Your task to perform on an android device: turn notification dots on Image 0: 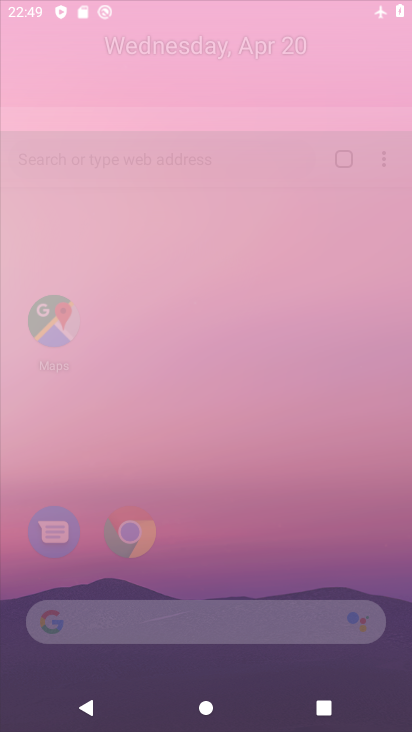
Step 0: click (346, 328)
Your task to perform on an android device: turn notification dots on Image 1: 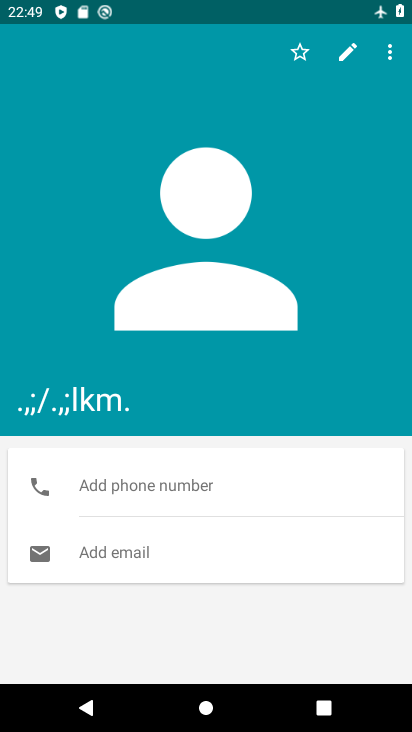
Step 1: press home button
Your task to perform on an android device: turn notification dots on Image 2: 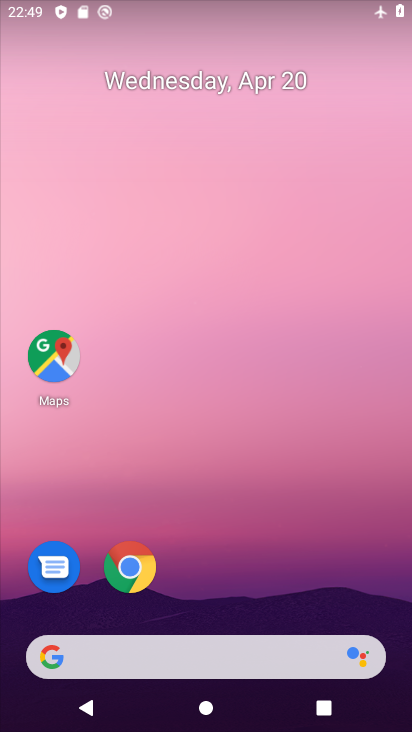
Step 2: drag from (269, 336) to (272, 291)
Your task to perform on an android device: turn notification dots on Image 3: 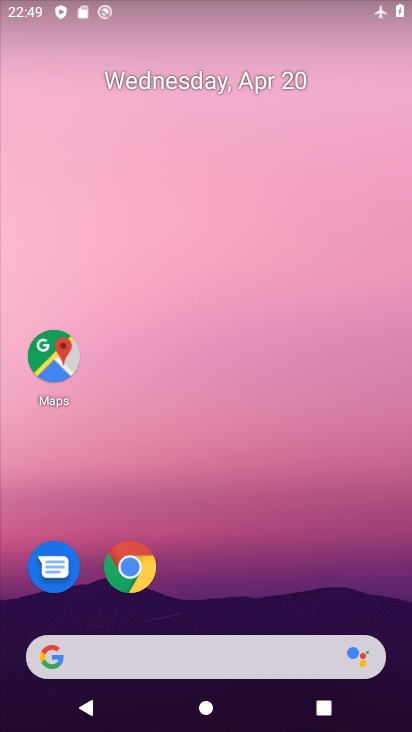
Step 3: drag from (223, 465) to (263, 145)
Your task to perform on an android device: turn notification dots on Image 4: 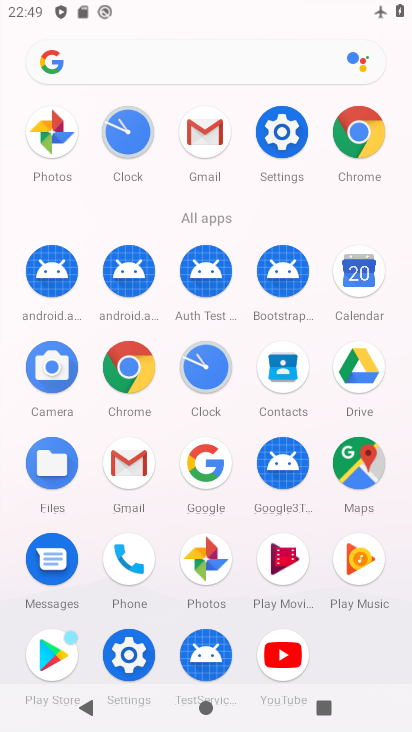
Step 4: click (274, 129)
Your task to perform on an android device: turn notification dots on Image 5: 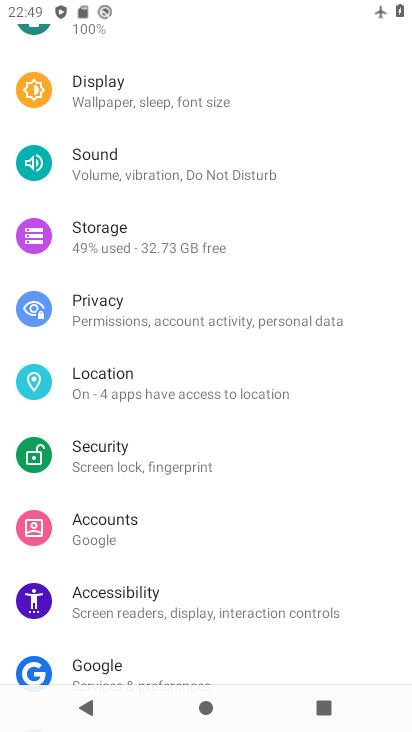
Step 5: drag from (266, 70) to (205, 629)
Your task to perform on an android device: turn notification dots on Image 6: 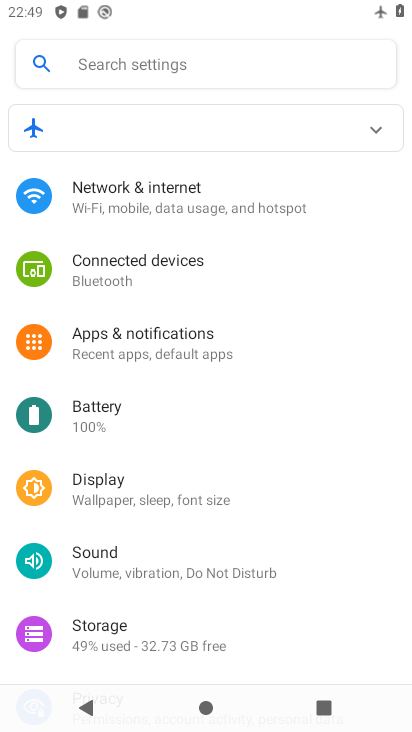
Step 6: click (204, 49)
Your task to perform on an android device: turn notification dots on Image 7: 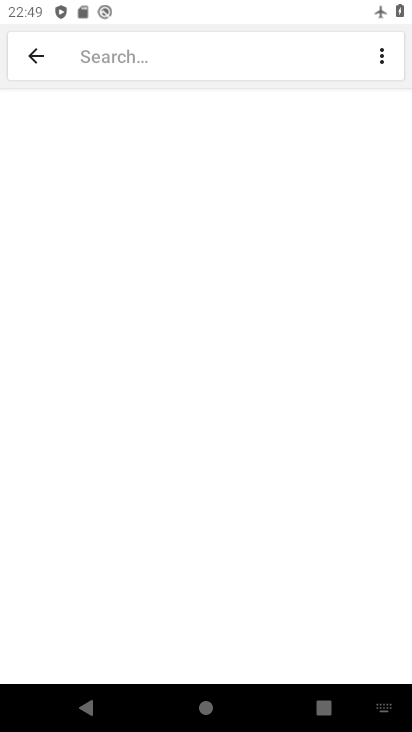
Step 7: type "notification dots on"
Your task to perform on an android device: turn notification dots on Image 8: 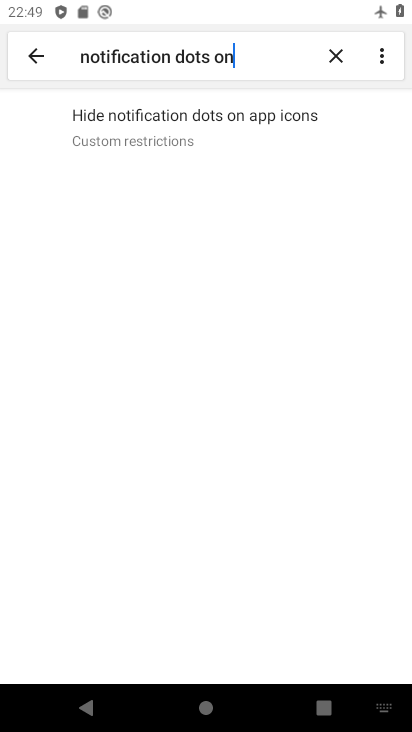
Step 8: click (251, 139)
Your task to perform on an android device: turn notification dots on Image 9: 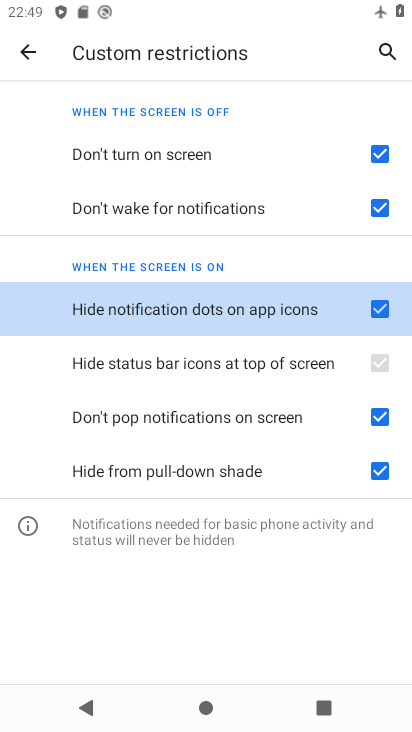
Step 9: press back button
Your task to perform on an android device: turn notification dots on Image 10: 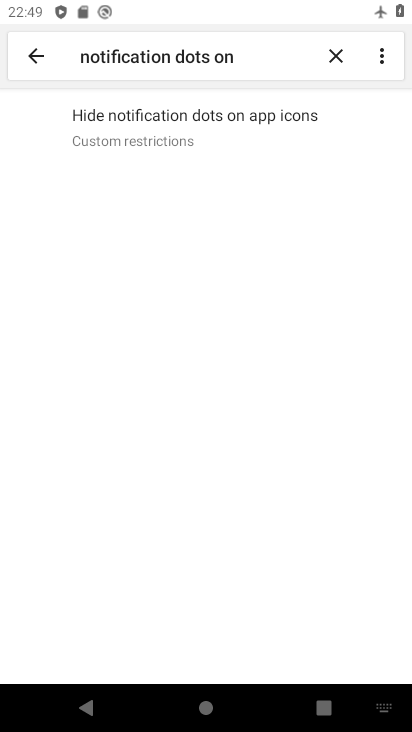
Step 10: click (326, 49)
Your task to perform on an android device: turn notification dots on Image 11: 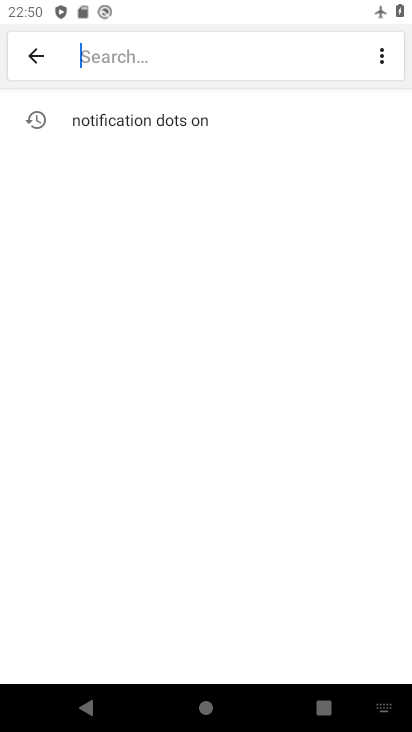
Step 11: click (255, 54)
Your task to perform on an android device: turn notification dots on Image 12: 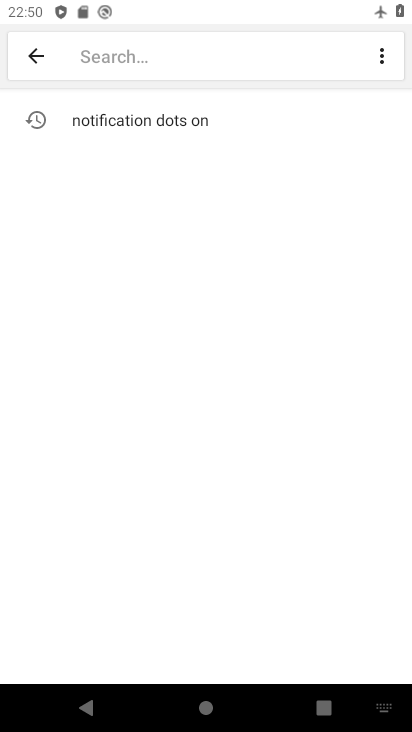
Step 12: type "notification dots"
Your task to perform on an android device: turn notification dots on Image 13: 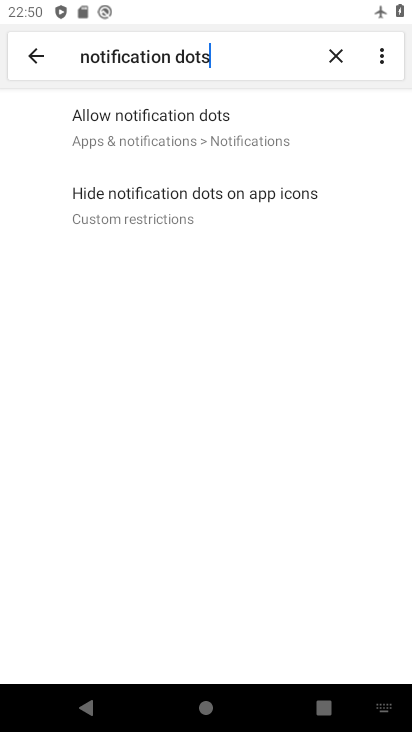
Step 13: click (230, 121)
Your task to perform on an android device: turn notification dots on Image 14: 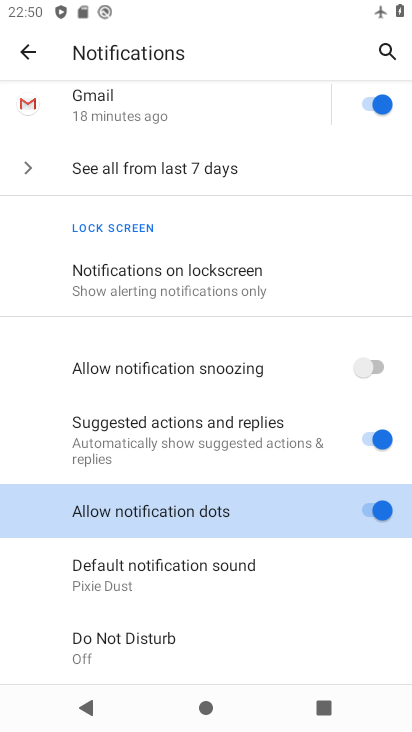
Step 14: task complete